Your task to perform on an android device: turn on data saver in the chrome app Image 0: 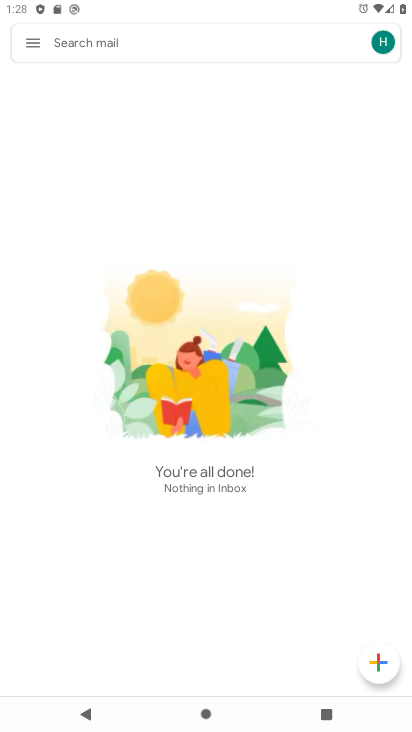
Step 0: press home button
Your task to perform on an android device: turn on data saver in the chrome app Image 1: 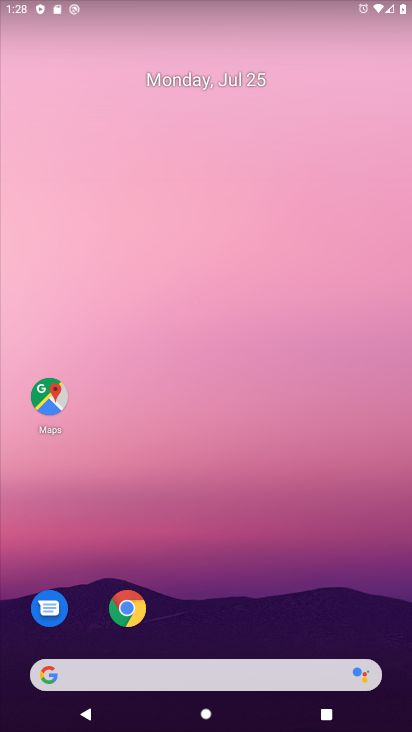
Step 1: drag from (284, 606) to (255, 45)
Your task to perform on an android device: turn on data saver in the chrome app Image 2: 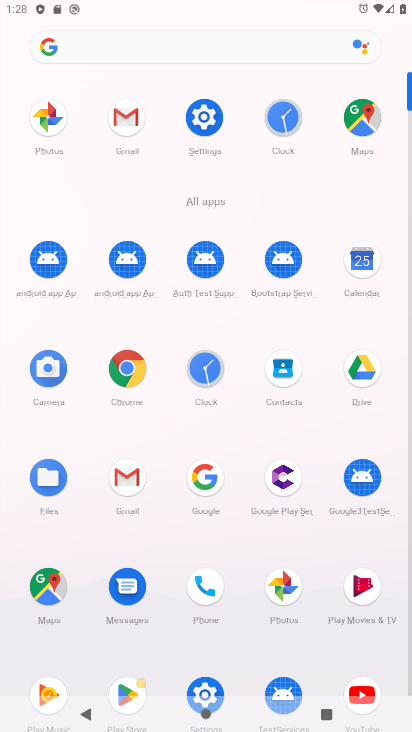
Step 2: click (123, 371)
Your task to perform on an android device: turn on data saver in the chrome app Image 3: 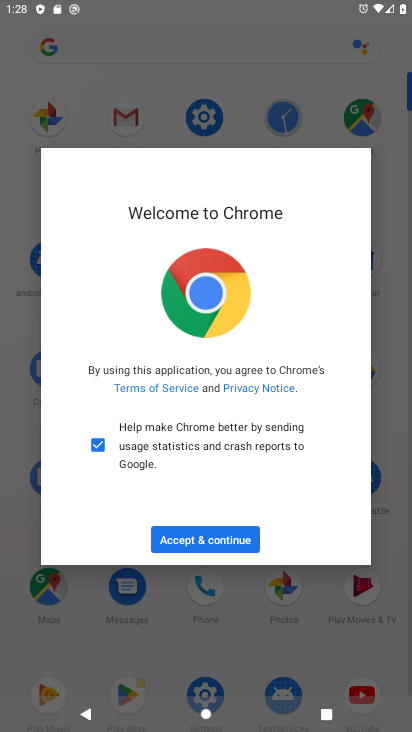
Step 3: click (220, 534)
Your task to perform on an android device: turn on data saver in the chrome app Image 4: 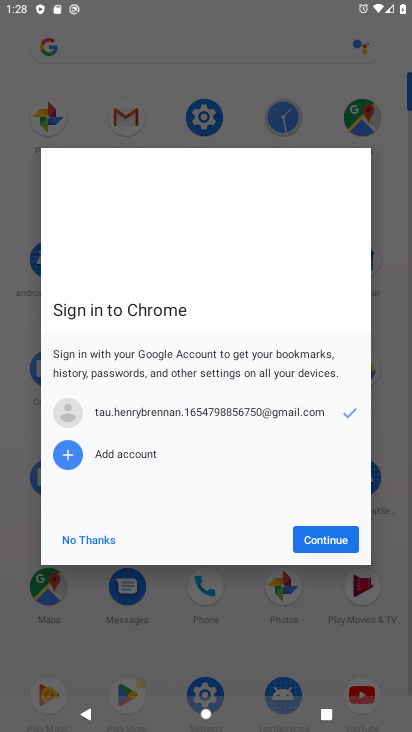
Step 4: click (322, 531)
Your task to perform on an android device: turn on data saver in the chrome app Image 5: 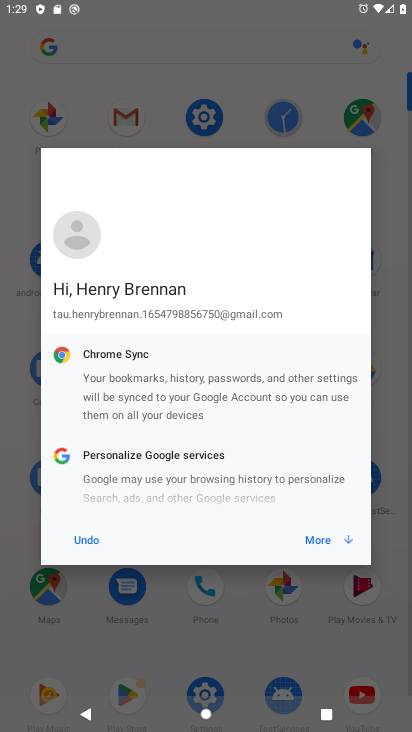
Step 5: click (310, 540)
Your task to perform on an android device: turn on data saver in the chrome app Image 6: 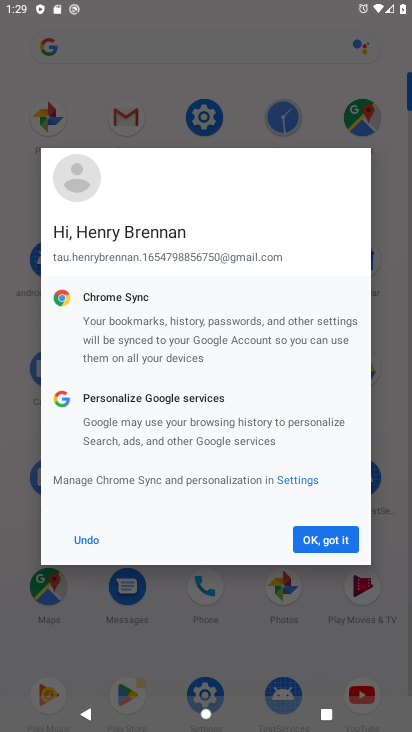
Step 6: click (318, 526)
Your task to perform on an android device: turn on data saver in the chrome app Image 7: 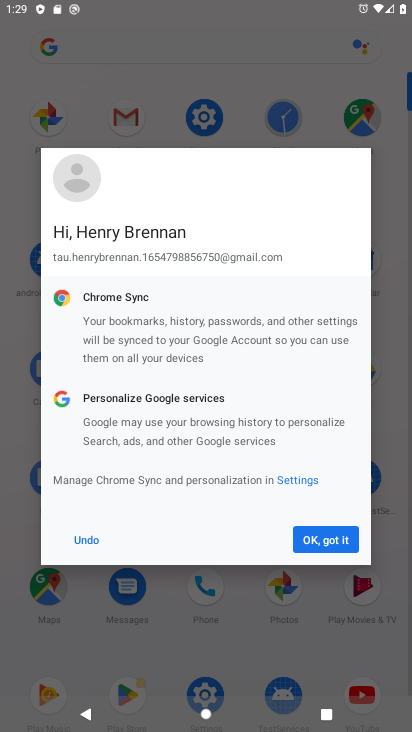
Step 7: click (316, 544)
Your task to perform on an android device: turn on data saver in the chrome app Image 8: 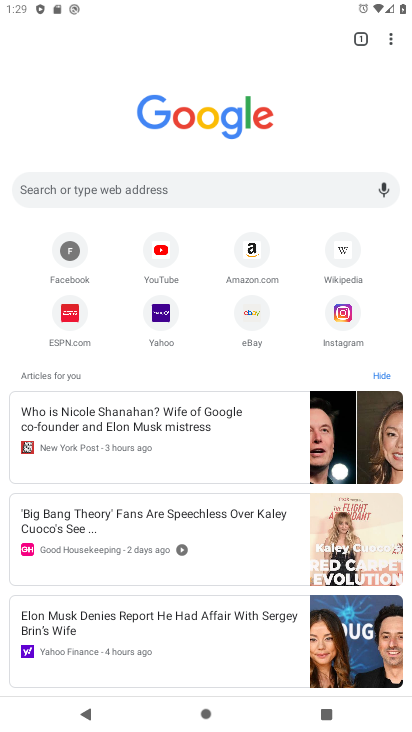
Step 8: drag from (401, 37) to (265, 320)
Your task to perform on an android device: turn on data saver in the chrome app Image 9: 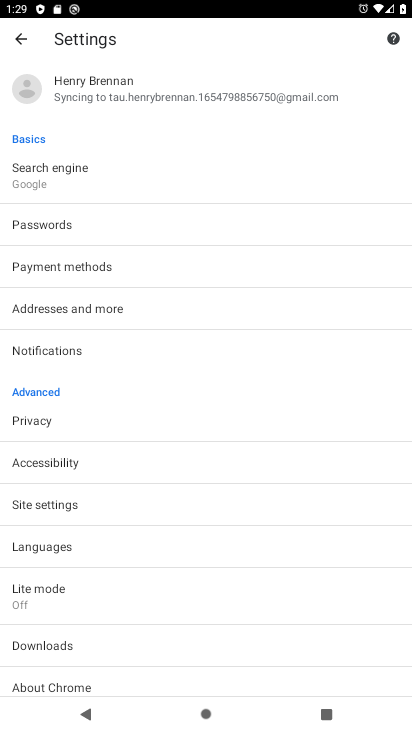
Step 9: click (113, 603)
Your task to perform on an android device: turn on data saver in the chrome app Image 10: 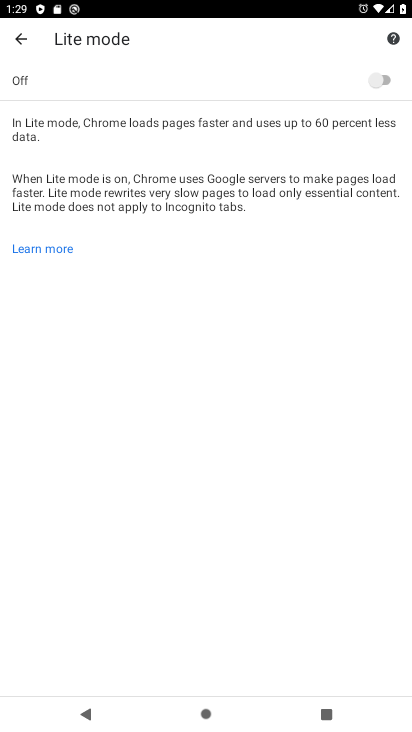
Step 10: click (360, 64)
Your task to perform on an android device: turn on data saver in the chrome app Image 11: 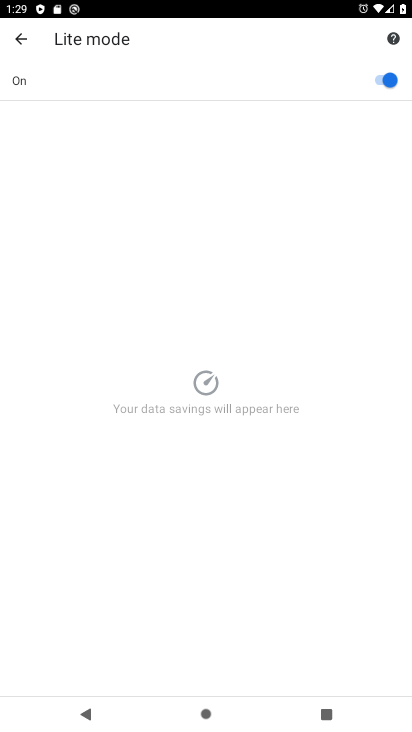
Step 11: task complete